Your task to perform on an android device: Open the Play Movies app and select the watchlist tab. Image 0: 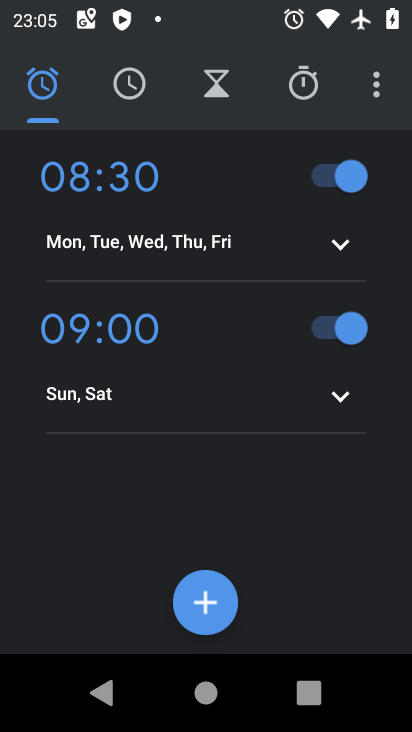
Step 0: drag from (189, 508) to (243, 171)
Your task to perform on an android device: Open the Play Movies app and select the watchlist tab. Image 1: 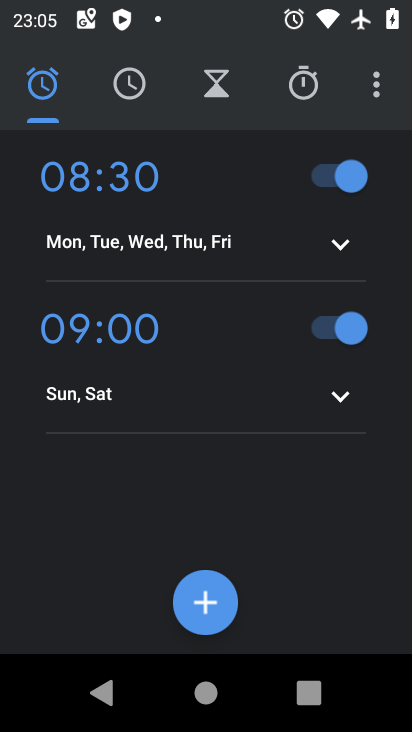
Step 1: press home button
Your task to perform on an android device: Open the Play Movies app and select the watchlist tab. Image 2: 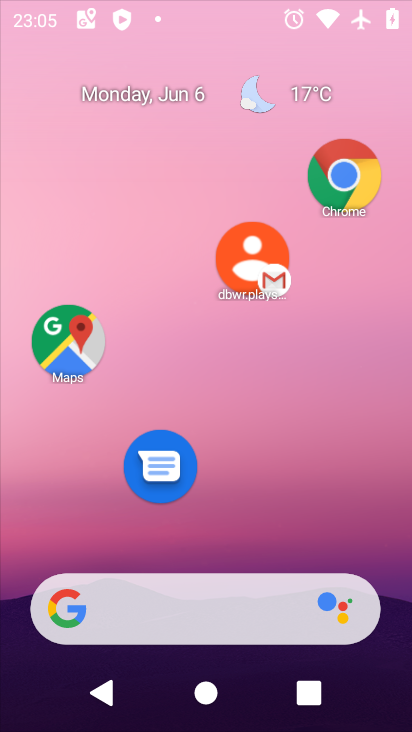
Step 2: drag from (118, 522) to (237, 173)
Your task to perform on an android device: Open the Play Movies app and select the watchlist tab. Image 3: 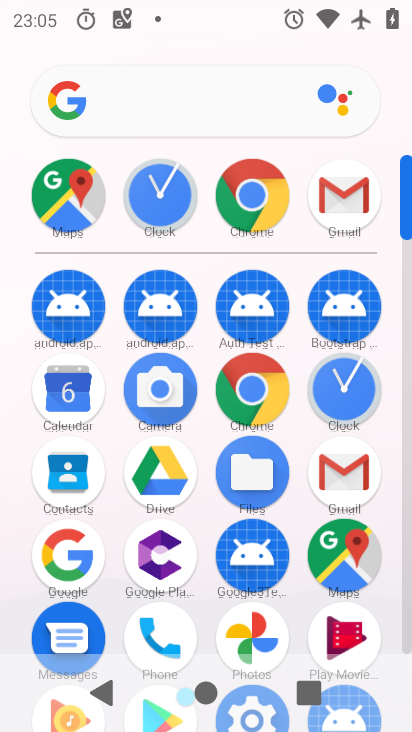
Step 3: drag from (201, 609) to (228, 124)
Your task to perform on an android device: Open the Play Movies app and select the watchlist tab. Image 4: 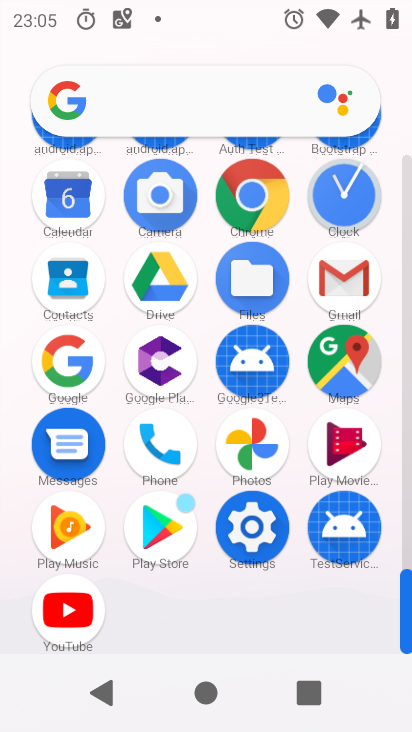
Step 4: click (324, 435)
Your task to perform on an android device: Open the Play Movies app and select the watchlist tab. Image 5: 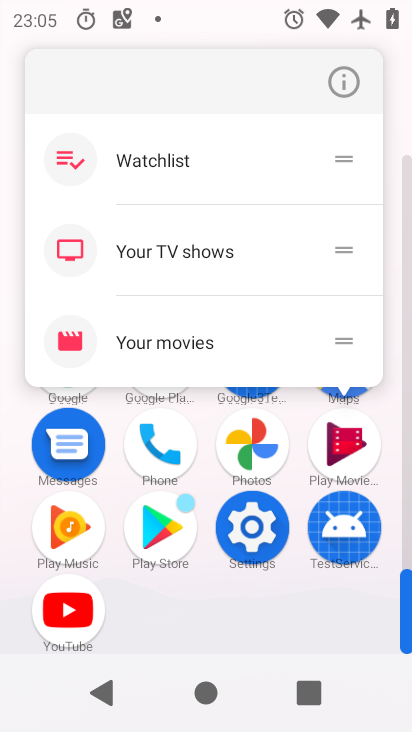
Step 5: click (339, 83)
Your task to perform on an android device: Open the Play Movies app and select the watchlist tab. Image 6: 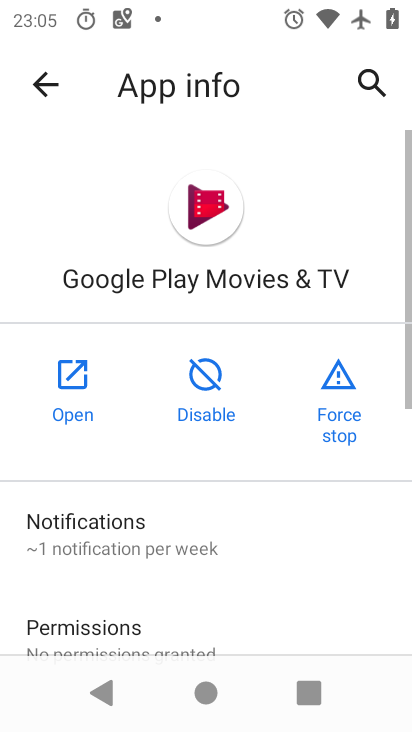
Step 6: click (66, 403)
Your task to perform on an android device: Open the Play Movies app and select the watchlist tab. Image 7: 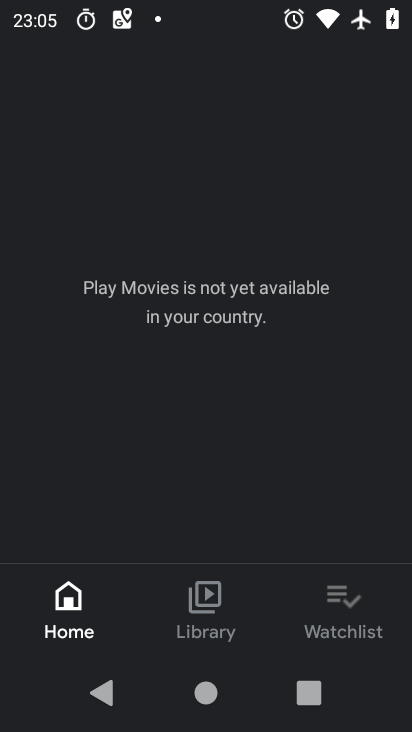
Step 7: drag from (221, 571) to (273, 156)
Your task to perform on an android device: Open the Play Movies app and select the watchlist tab. Image 8: 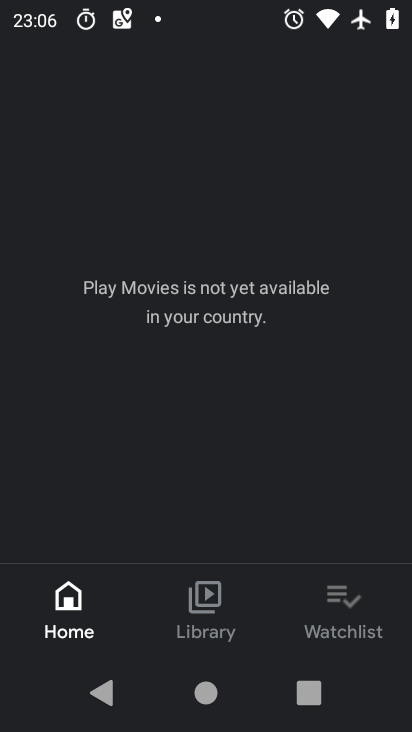
Step 8: click (321, 586)
Your task to perform on an android device: Open the Play Movies app and select the watchlist tab. Image 9: 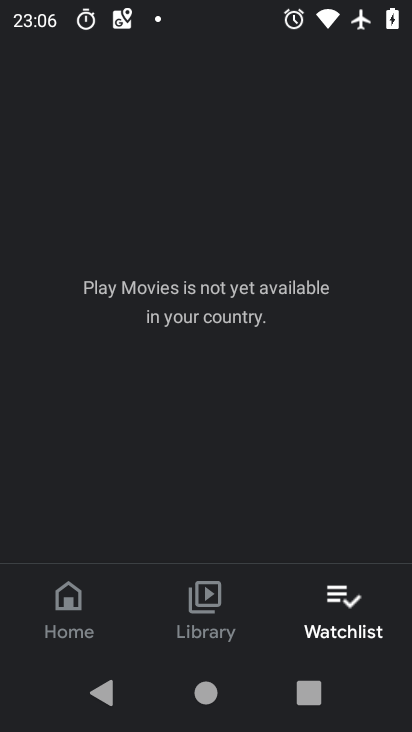
Step 9: task complete